Your task to perform on an android device: open a new tab in the chrome app Image 0: 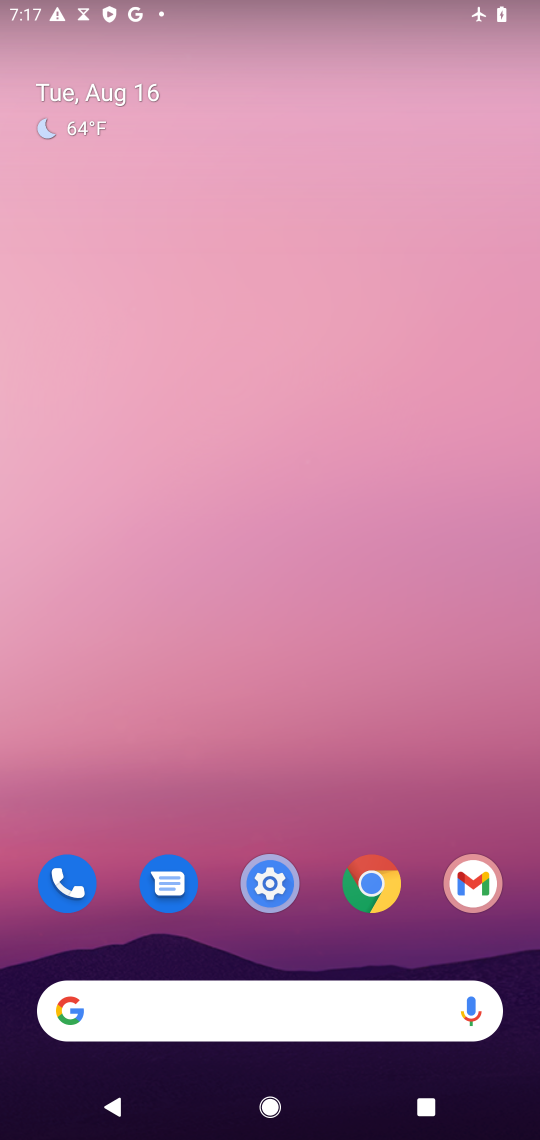
Step 0: click (374, 888)
Your task to perform on an android device: open a new tab in the chrome app Image 1: 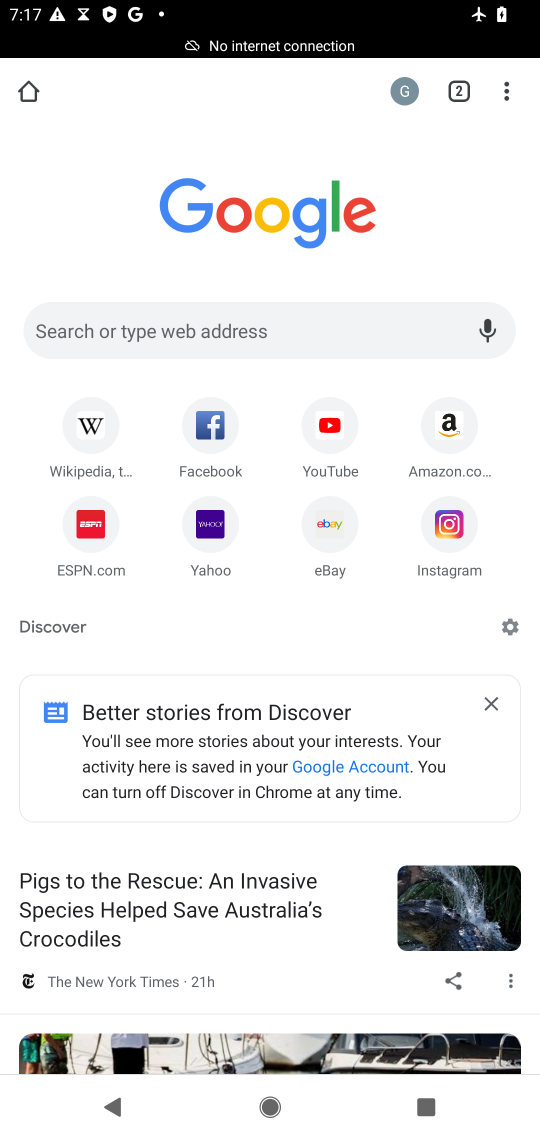
Step 1: click (508, 95)
Your task to perform on an android device: open a new tab in the chrome app Image 2: 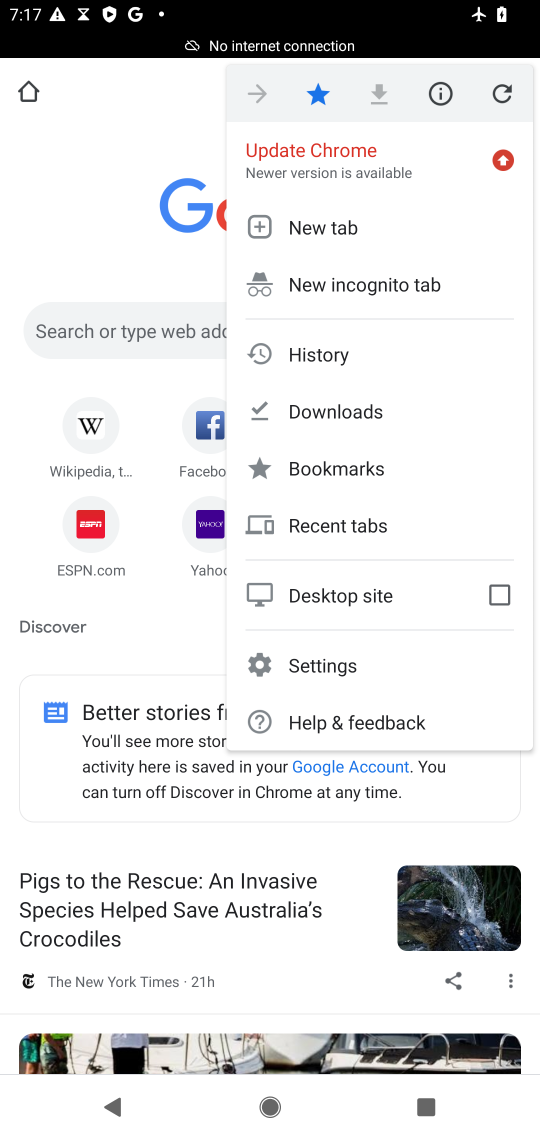
Step 2: click (332, 228)
Your task to perform on an android device: open a new tab in the chrome app Image 3: 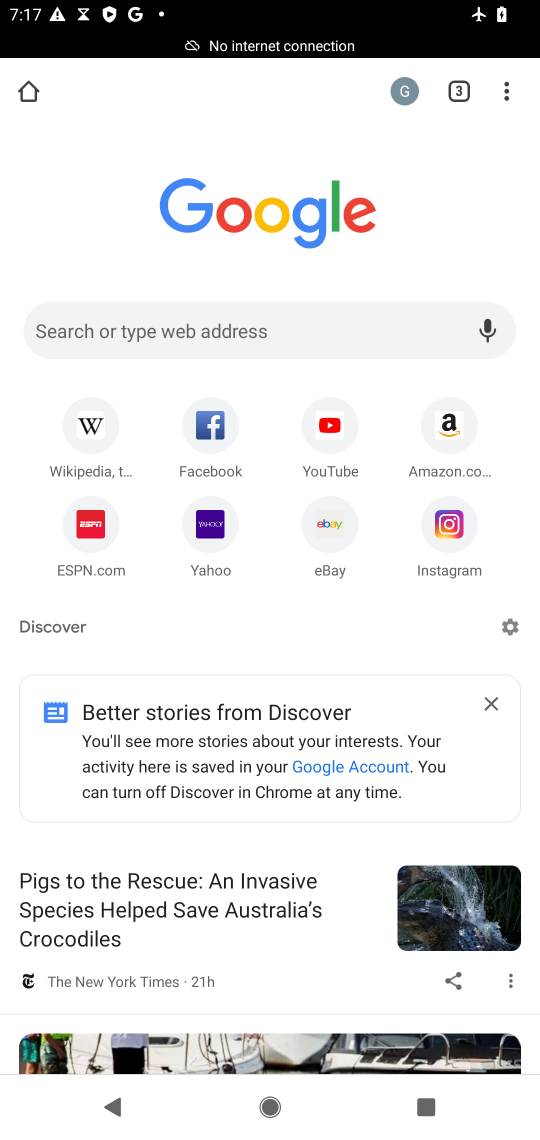
Step 3: task complete